Your task to perform on an android device: turn on wifi Image 0: 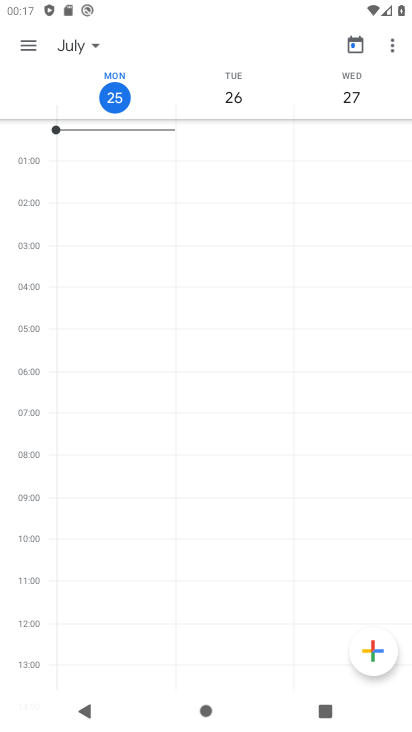
Step 0: press home button
Your task to perform on an android device: turn on wifi Image 1: 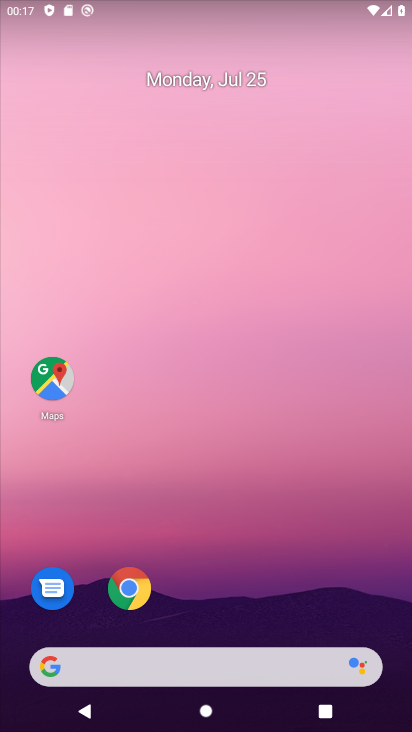
Step 1: drag from (210, 614) to (220, 28)
Your task to perform on an android device: turn on wifi Image 2: 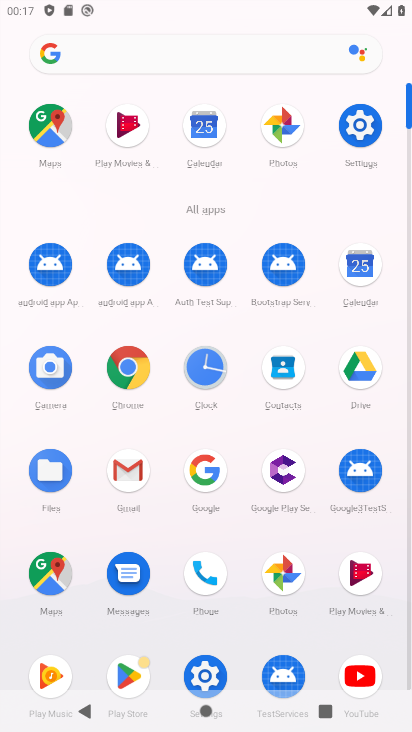
Step 2: click (213, 649)
Your task to perform on an android device: turn on wifi Image 3: 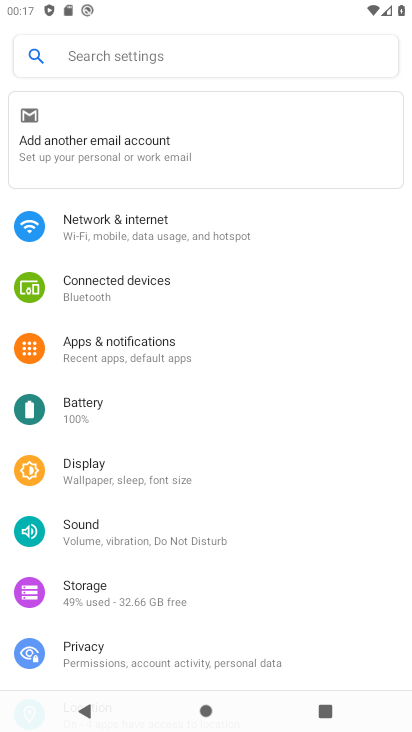
Step 3: click (133, 224)
Your task to perform on an android device: turn on wifi Image 4: 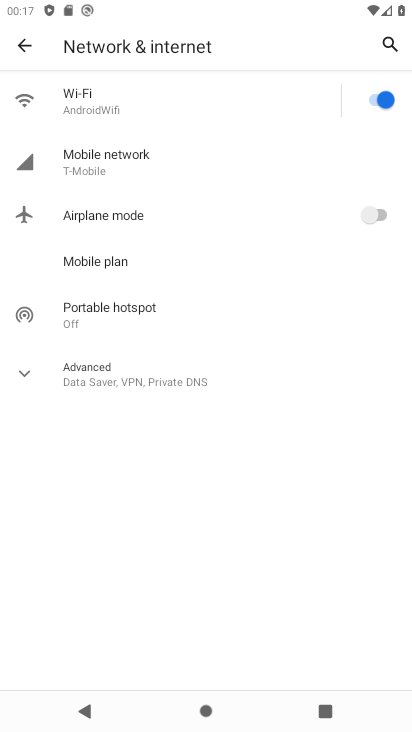
Step 4: task complete